Your task to perform on an android device: open sync settings in chrome Image 0: 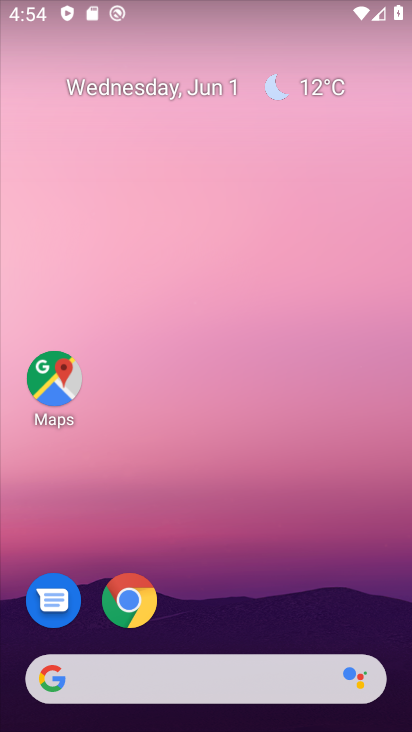
Step 0: click (130, 599)
Your task to perform on an android device: open sync settings in chrome Image 1: 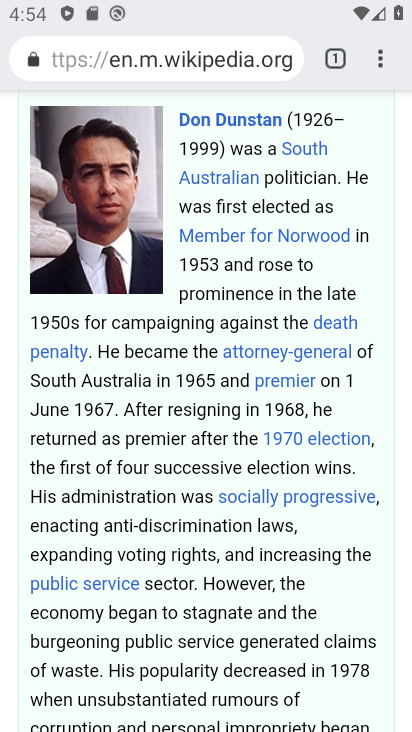
Step 1: click (381, 58)
Your task to perform on an android device: open sync settings in chrome Image 2: 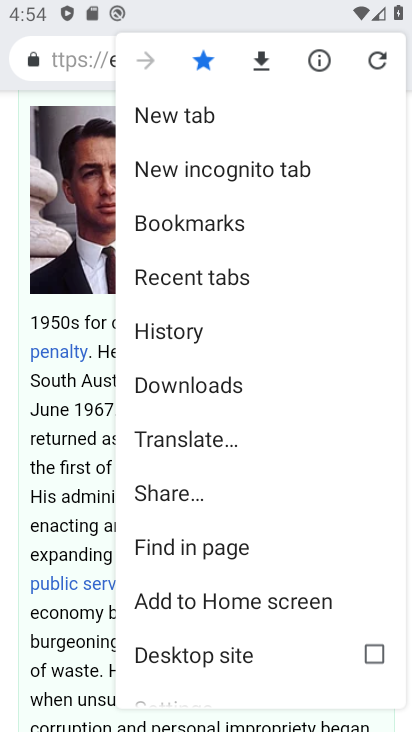
Step 2: drag from (205, 465) to (226, 397)
Your task to perform on an android device: open sync settings in chrome Image 3: 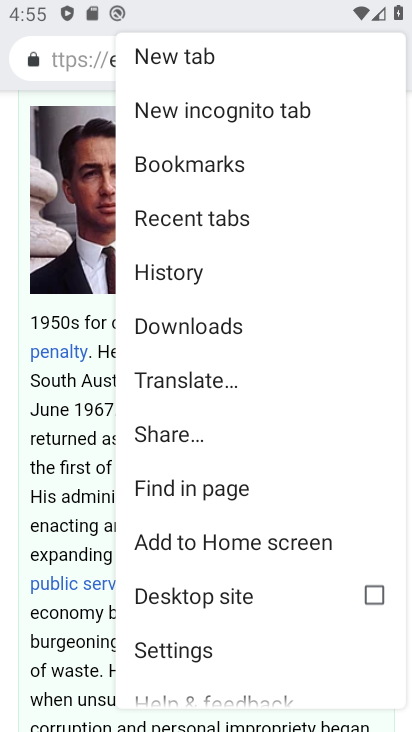
Step 3: drag from (199, 509) to (251, 446)
Your task to perform on an android device: open sync settings in chrome Image 4: 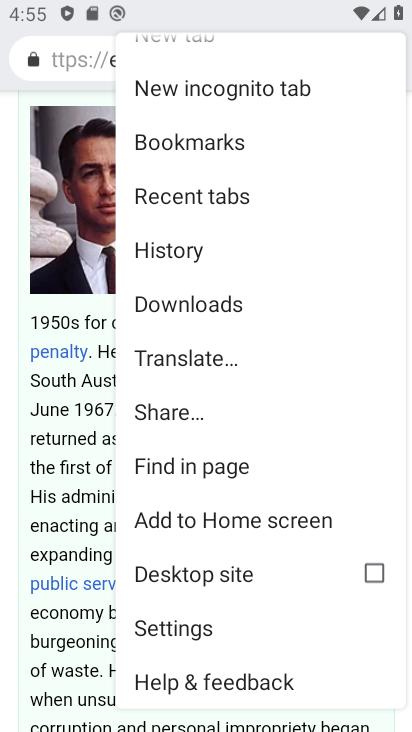
Step 4: click (185, 629)
Your task to perform on an android device: open sync settings in chrome Image 5: 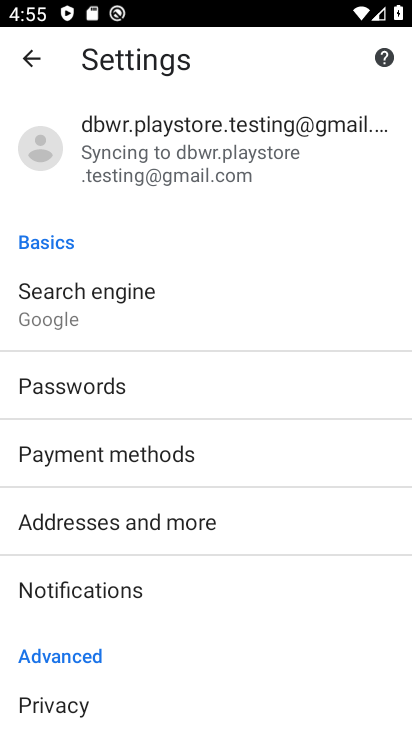
Step 5: drag from (128, 501) to (183, 412)
Your task to perform on an android device: open sync settings in chrome Image 6: 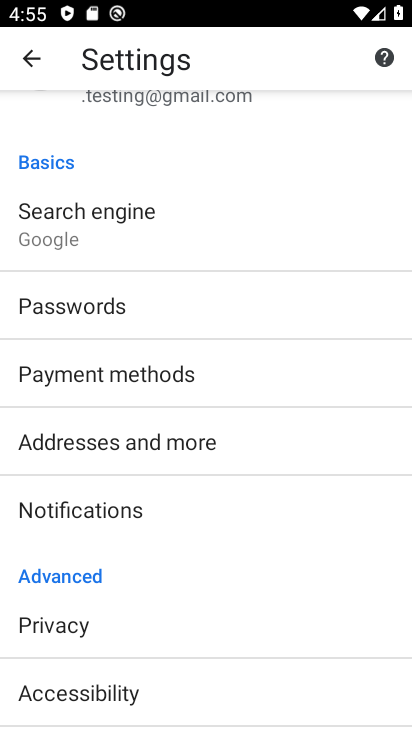
Step 6: drag from (93, 552) to (143, 490)
Your task to perform on an android device: open sync settings in chrome Image 7: 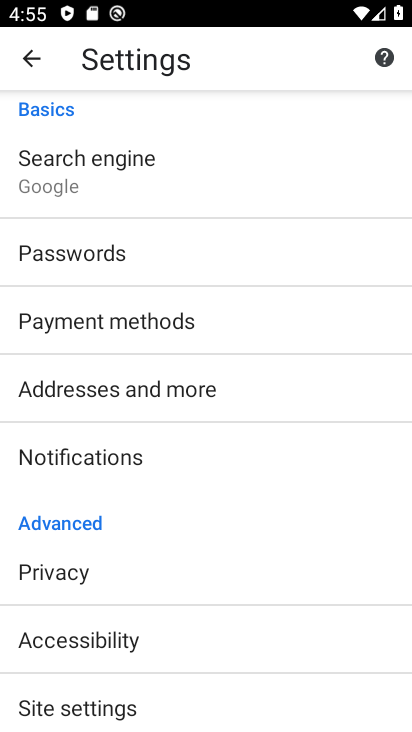
Step 7: drag from (82, 546) to (106, 496)
Your task to perform on an android device: open sync settings in chrome Image 8: 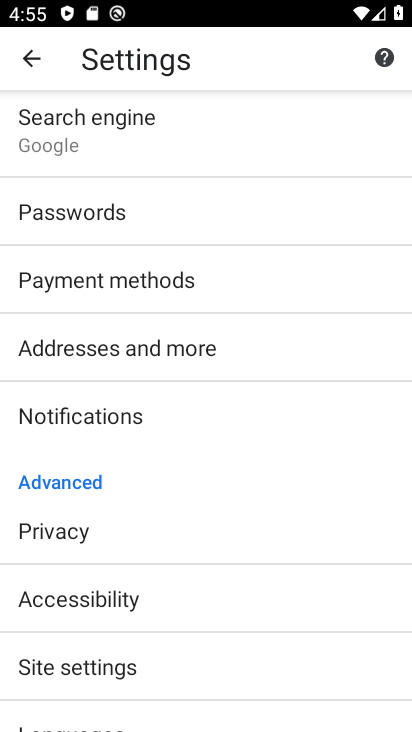
Step 8: drag from (111, 542) to (139, 475)
Your task to perform on an android device: open sync settings in chrome Image 9: 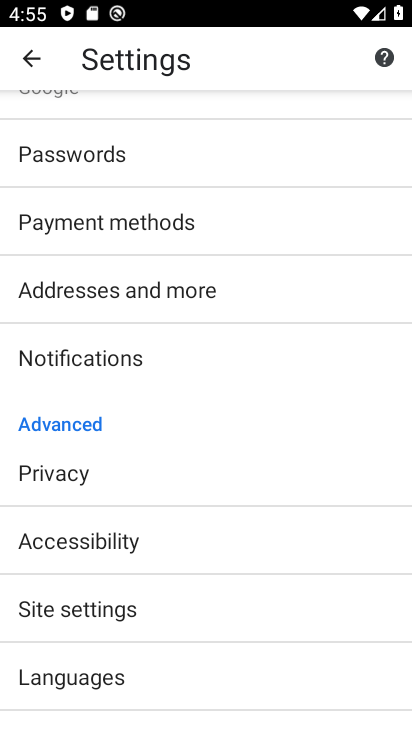
Step 9: click (97, 608)
Your task to perform on an android device: open sync settings in chrome Image 10: 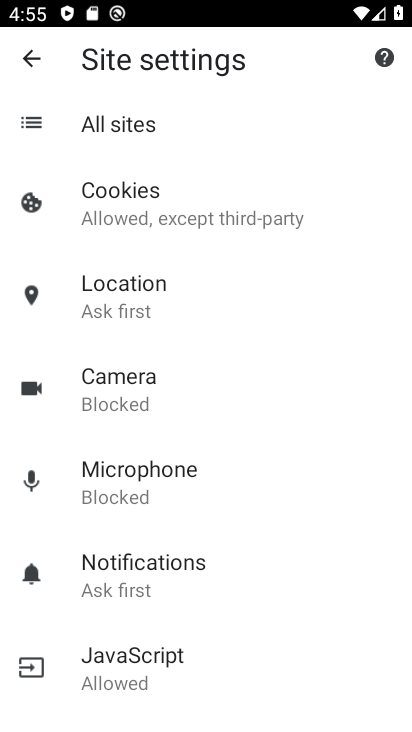
Step 10: drag from (178, 603) to (225, 506)
Your task to perform on an android device: open sync settings in chrome Image 11: 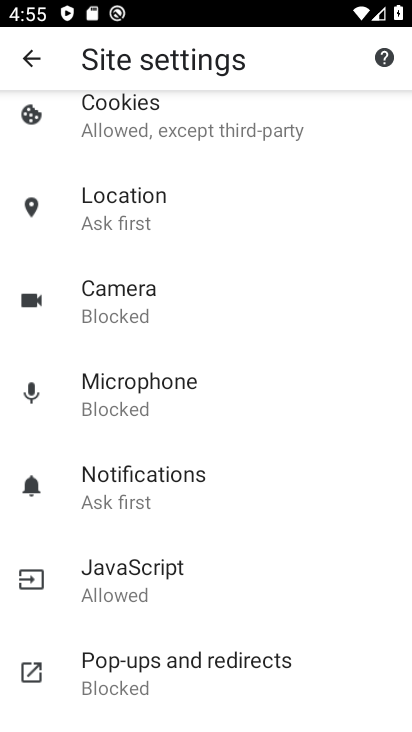
Step 11: drag from (138, 617) to (175, 522)
Your task to perform on an android device: open sync settings in chrome Image 12: 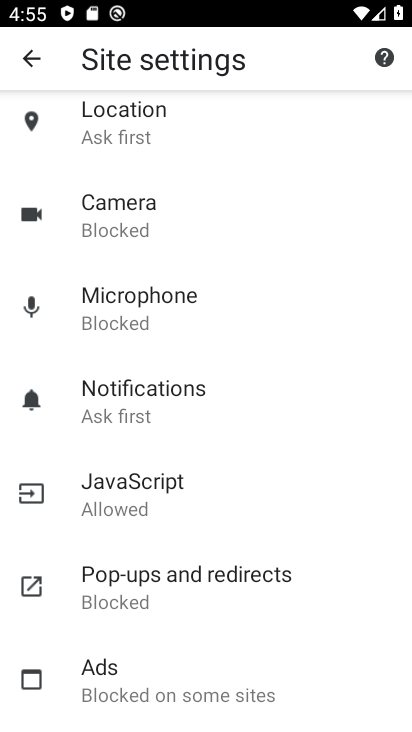
Step 12: drag from (123, 624) to (163, 532)
Your task to perform on an android device: open sync settings in chrome Image 13: 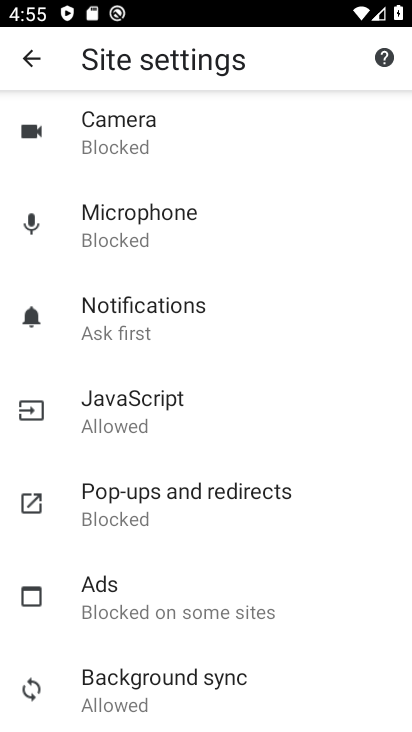
Step 13: click (149, 666)
Your task to perform on an android device: open sync settings in chrome Image 14: 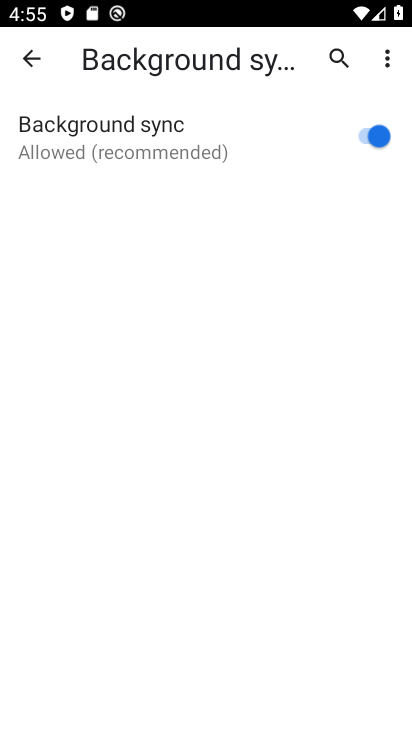
Step 14: task complete